Your task to perform on an android device: turn on sleep mode Image 0: 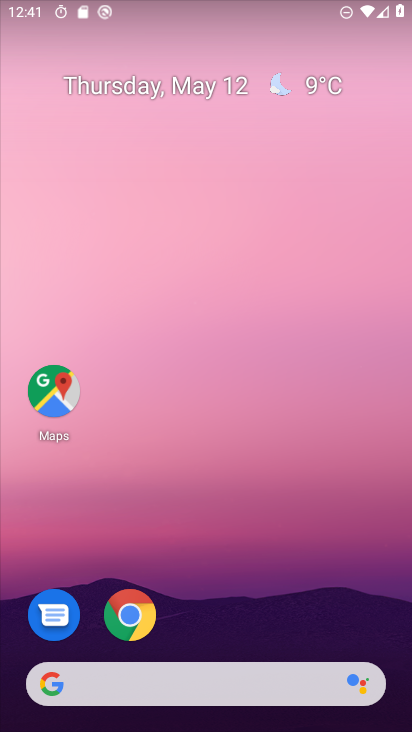
Step 0: drag from (271, 604) to (266, 79)
Your task to perform on an android device: turn on sleep mode Image 1: 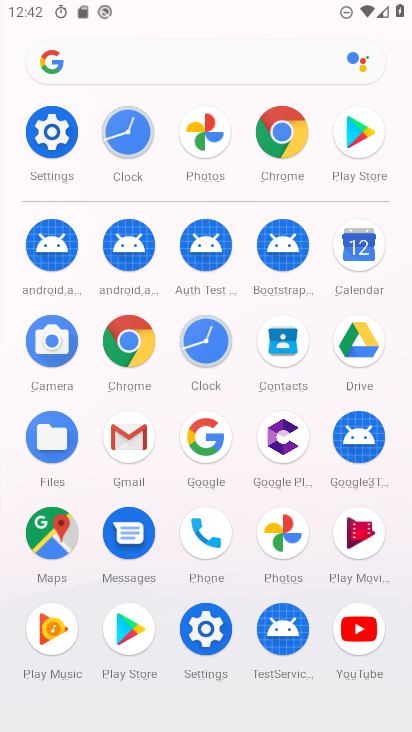
Step 1: click (58, 132)
Your task to perform on an android device: turn on sleep mode Image 2: 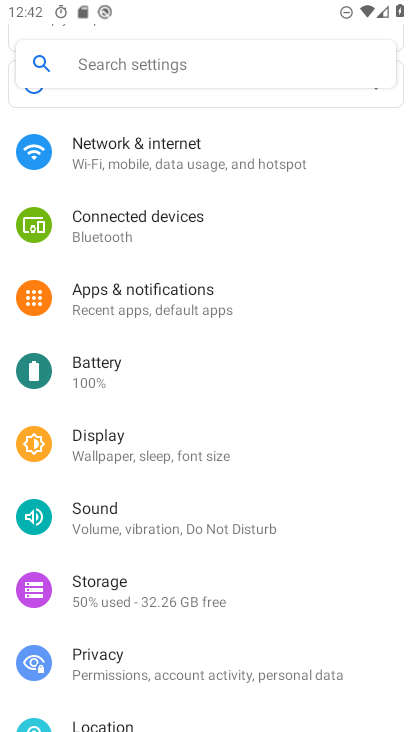
Step 2: click (147, 444)
Your task to perform on an android device: turn on sleep mode Image 3: 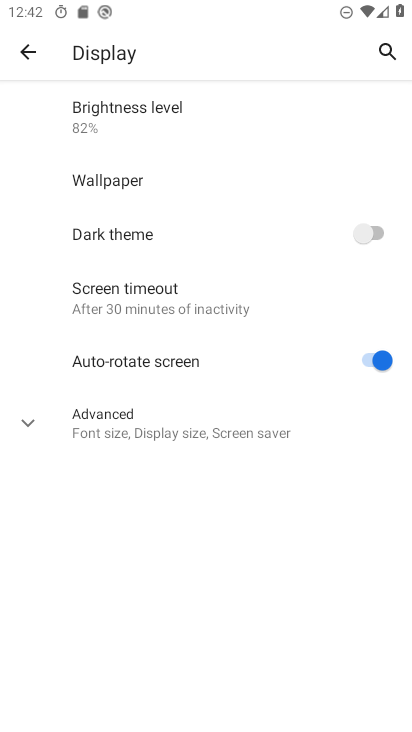
Step 3: click (166, 290)
Your task to perform on an android device: turn on sleep mode Image 4: 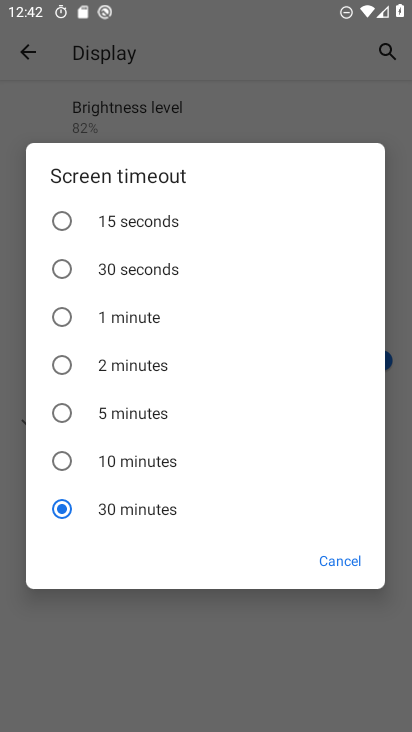
Step 4: task complete